Your task to perform on an android device: turn off airplane mode Image 0: 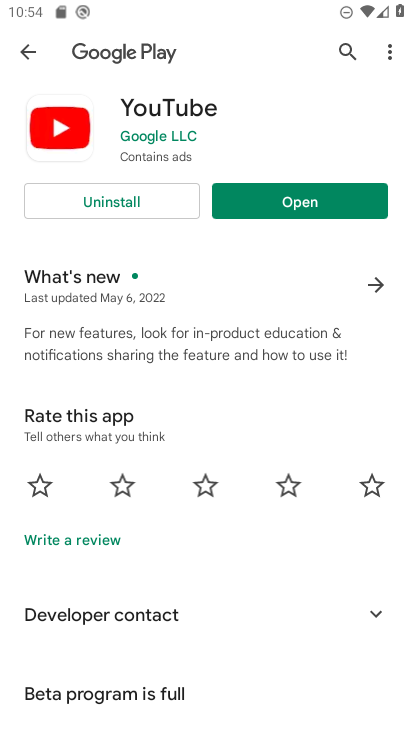
Step 0: press home button
Your task to perform on an android device: turn off airplane mode Image 1: 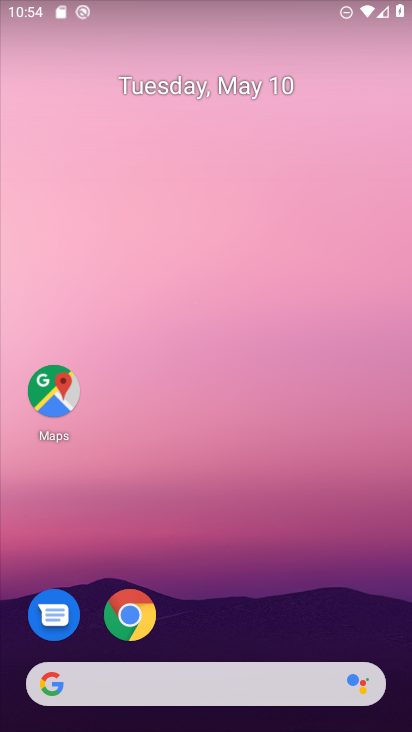
Step 1: drag from (201, 571) to (276, 74)
Your task to perform on an android device: turn off airplane mode Image 2: 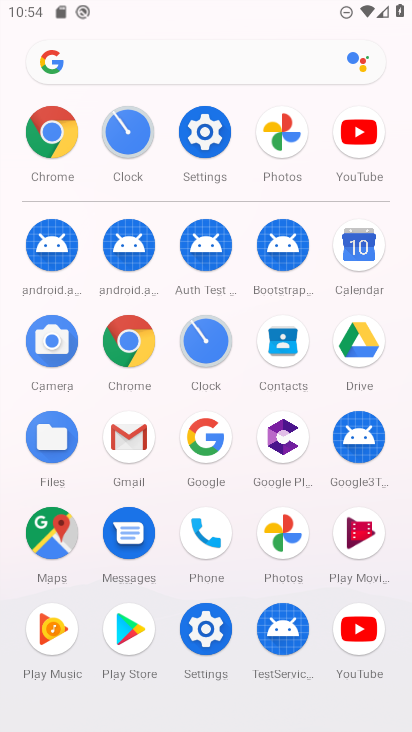
Step 2: click (206, 629)
Your task to perform on an android device: turn off airplane mode Image 3: 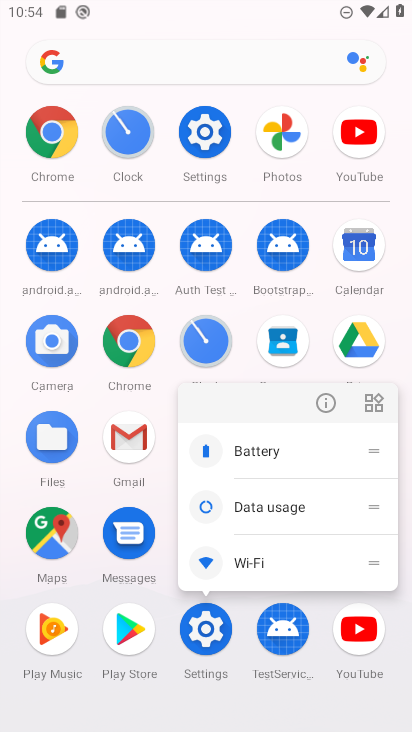
Step 3: click (328, 406)
Your task to perform on an android device: turn off airplane mode Image 4: 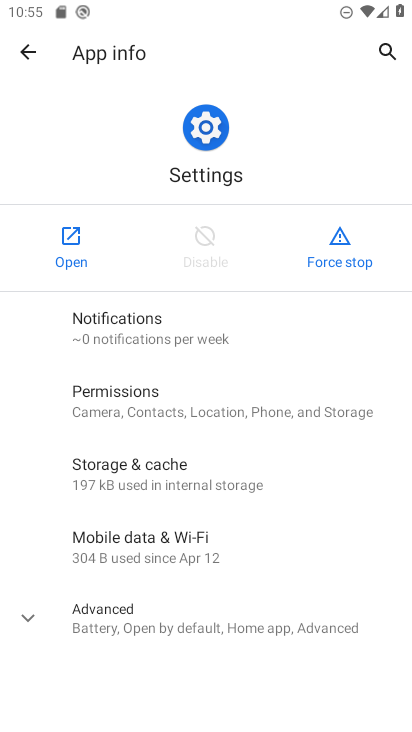
Step 4: click (76, 229)
Your task to perform on an android device: turn off airplane mode Image 5: 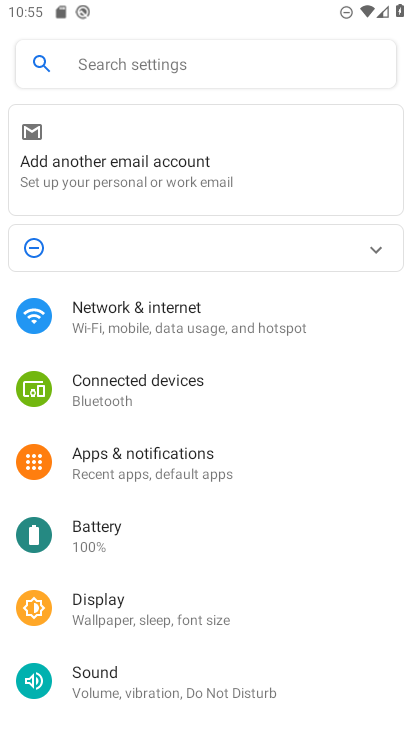
Step 5: click (155, 310)
Your task to perform on an android device: turn off airplane mode Image 6: 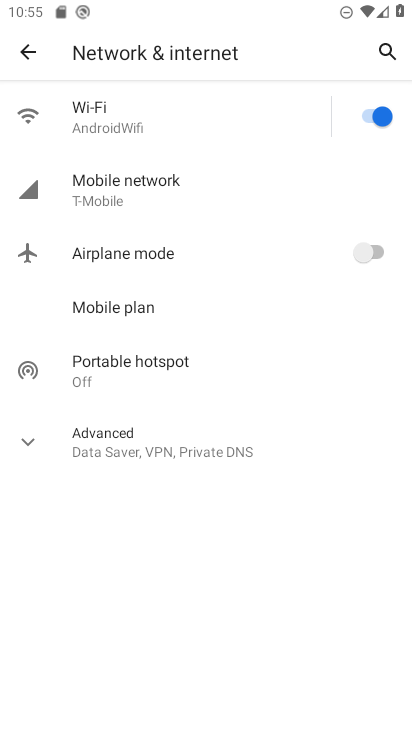
Step 6: task complete